Your task to perform on an android device: open app "Google Play services" (install if not already installed) Image 0: 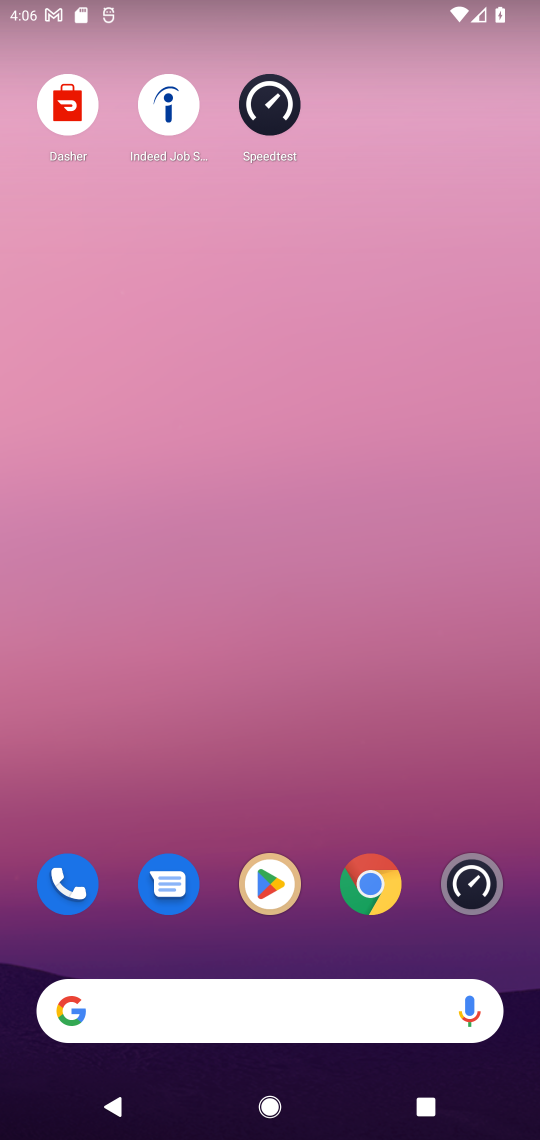
Step 0: click (256, 880)
Your task to perform on an android device: open app "Google Play services" (install if not already installed) Image 1: 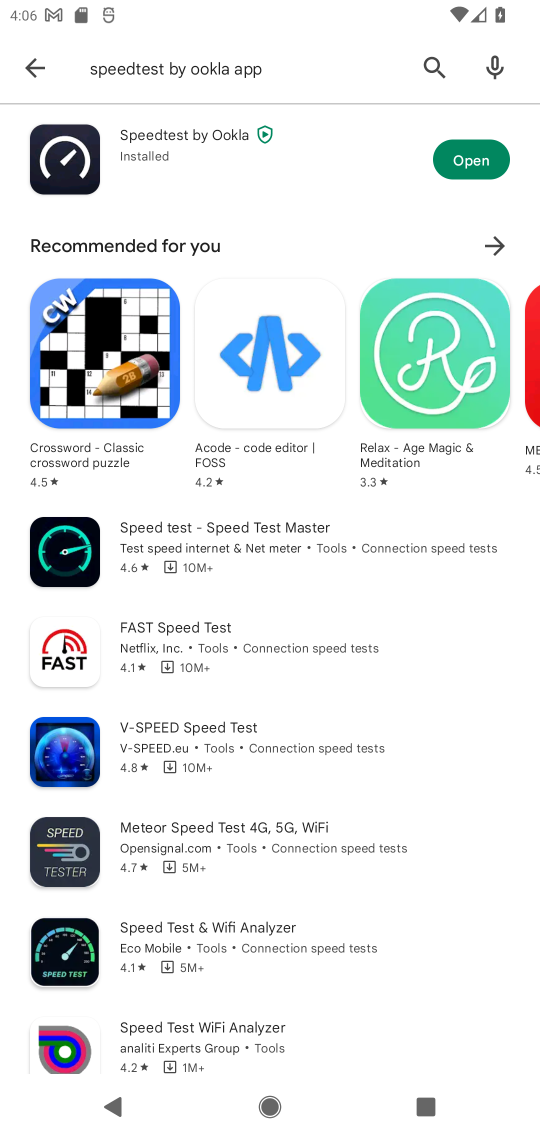
Step 1: click (296, 63)
Your task to perform on an android device: open app "Google Play services" (install if not already installed) Image 2: 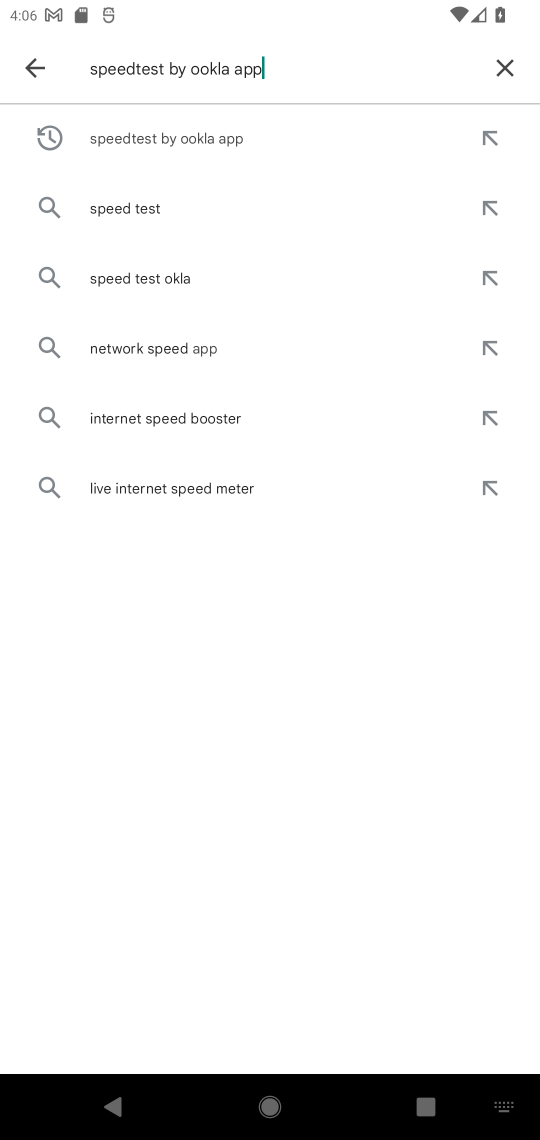
Step 2: click (516, 65)
Your task to perform on an android device: open app "Google Play services" (install if not already installed) Image 3: 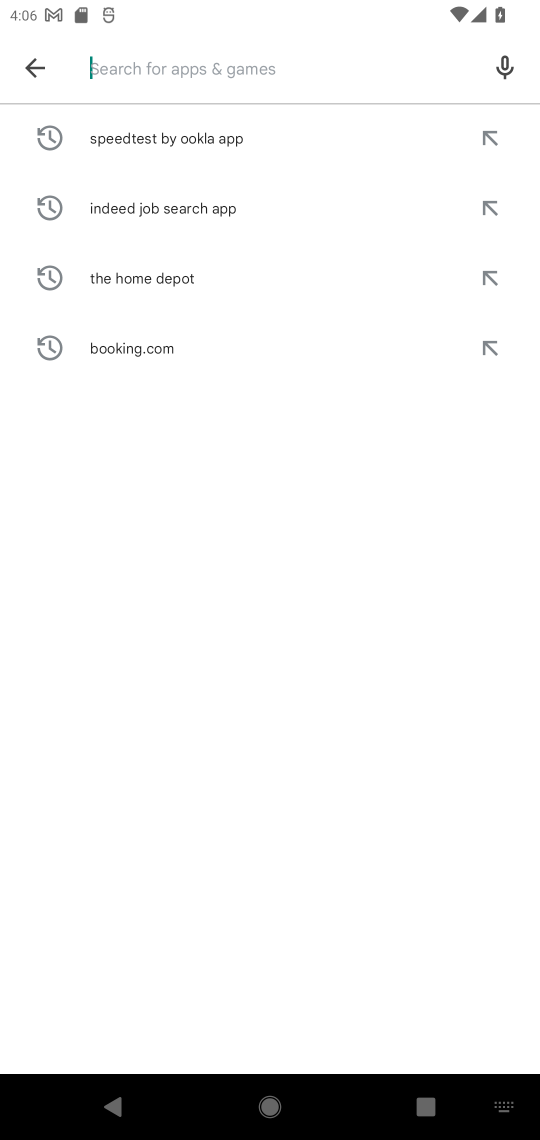
Step 3: type "google play services"
Your task to perform on an android device: open app "Google Play services" (install if not already installed) Image 4: 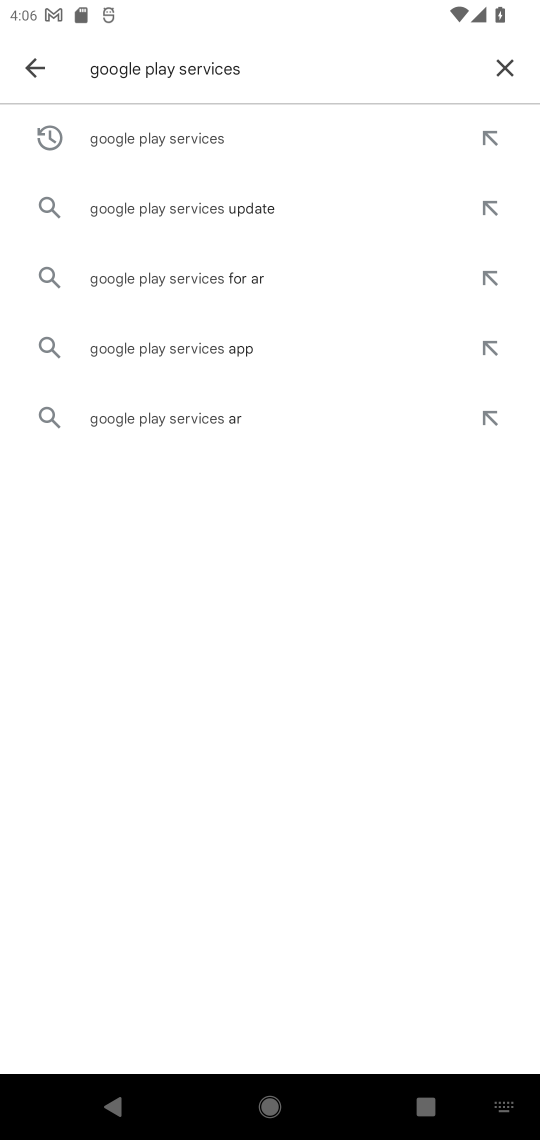
Step 4: click (155, 147)
Your task to perform on an android device: open app "Google Play services" (install if not already installed) Image 5: 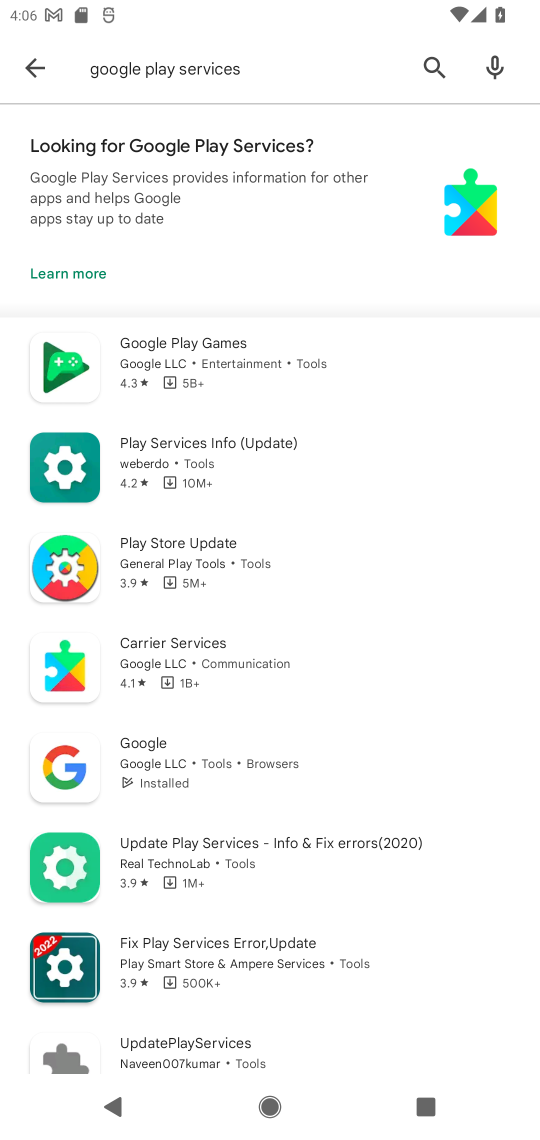
Step 5: click (246, 463)
Your task to perform on an android device: open app "Google Play services" (install if not already installed) Image 6: 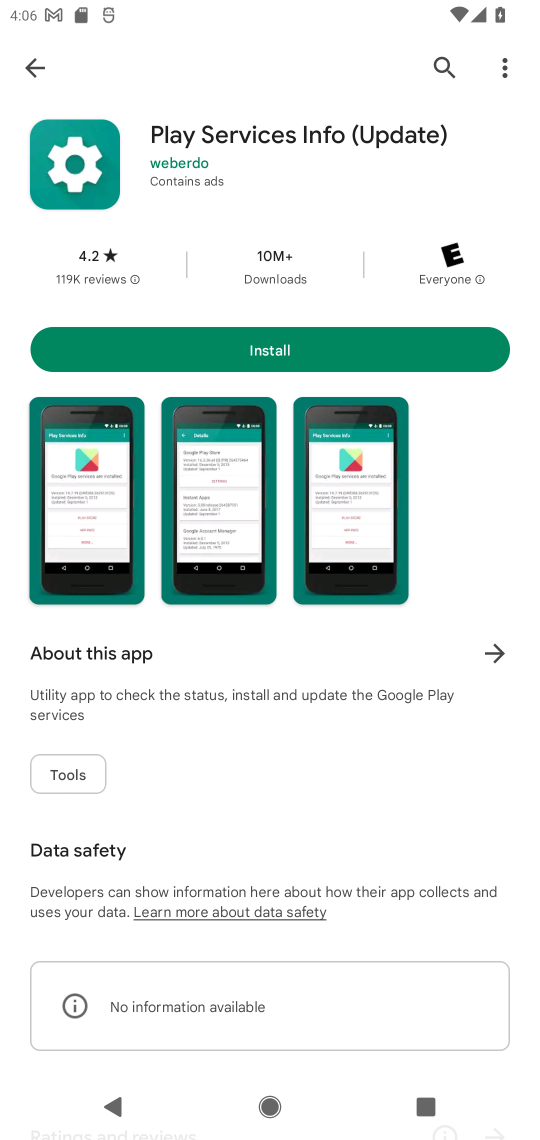
Step 6: click (334, 350)
Your task to perform on an android device: open app "Google Play services" (install if not already installed) Image 7: 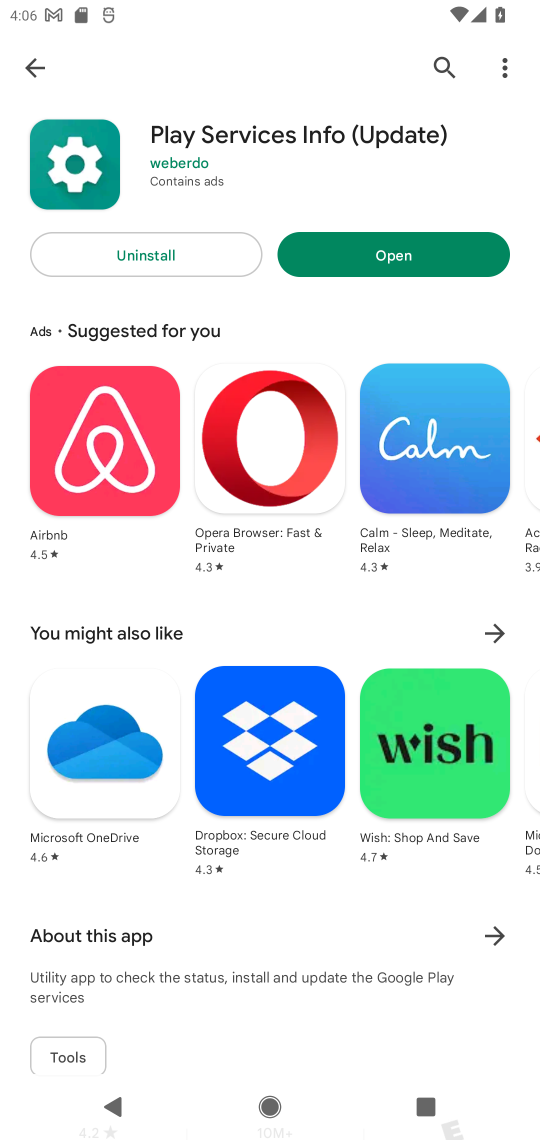
Step 7: click (447, 265)
Your task to perform on an android device: open app "Google Play services" (install if not already installed) Image 8: 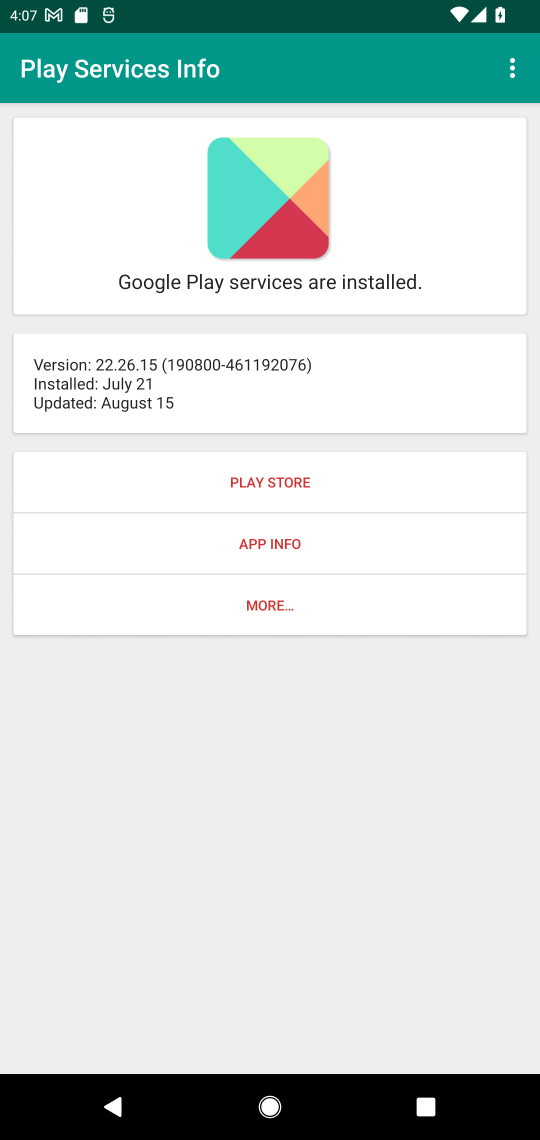
Step 8: task complete